Your task to perform on an android device: Open notification settings Image 0: 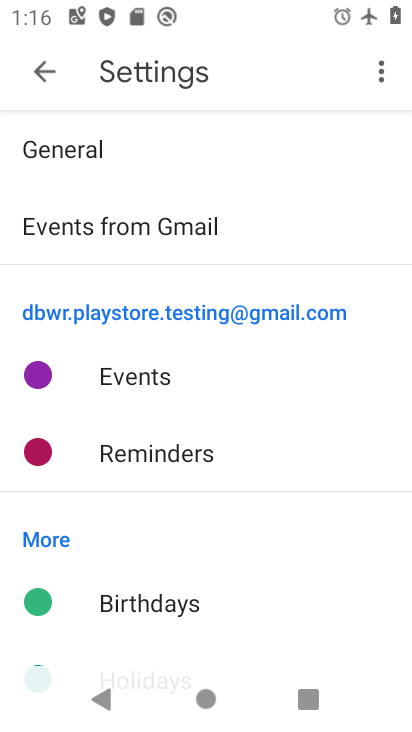
Step 0: press home button
Your task to perform on an android device: Open notification settings Image 1: 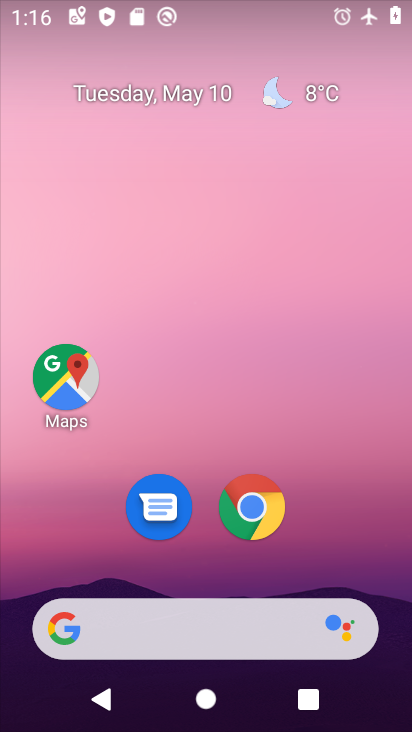
Step 1: drag from (193, 725) to (195, 226)
Your task to perform on an android device: Open notification settings Image 2: 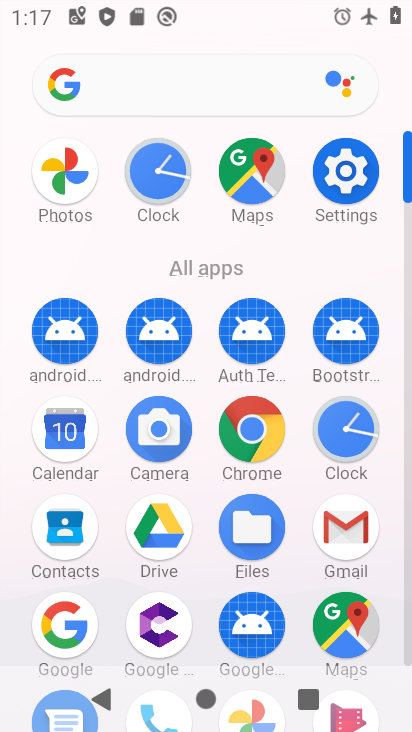
Step 2: click (334, 183)
Your task to perform on an android device: Open notification settings Image 3: 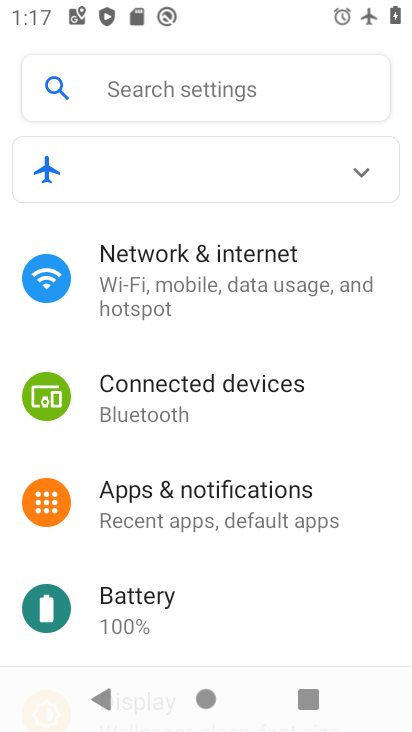
Step 3: click (190, 507)
Your task to perform on an android device: Open notification settings Image 4: 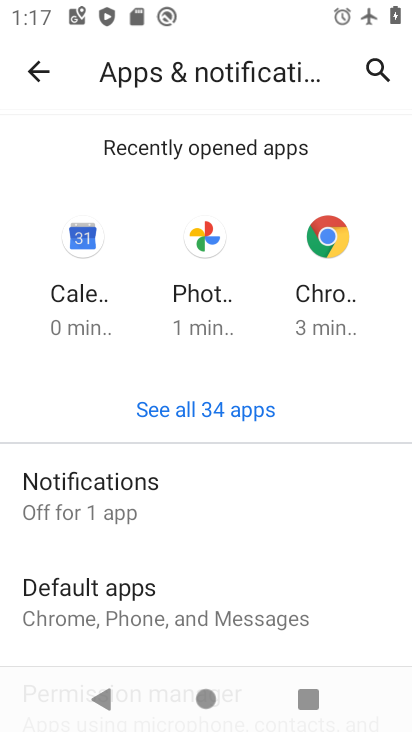
Step 4: click (64, 502)
Your task to perform on an android device: Open notification settings Image 5: 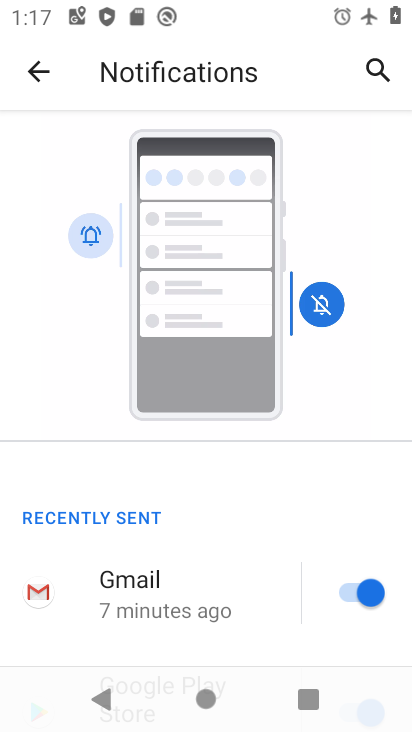
Step 5: drag from (147, 633) to (147, 263)
Your task to perform on an android device: Open notification settings Image 6: 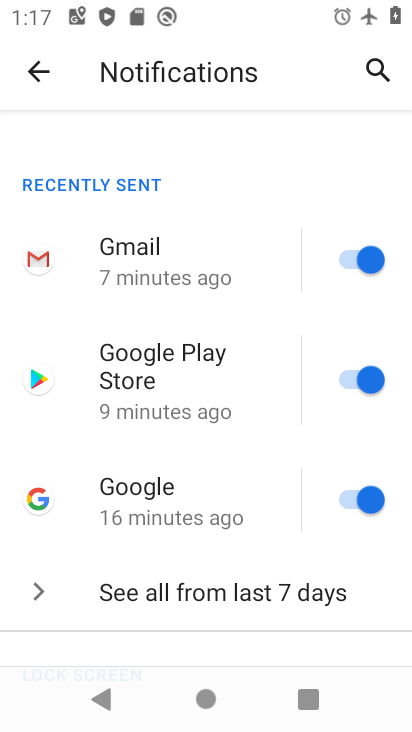
Step 6: drag from (183, 618) to (187, 237)
Your task to perform on an android device: Open notification settings Image 7: 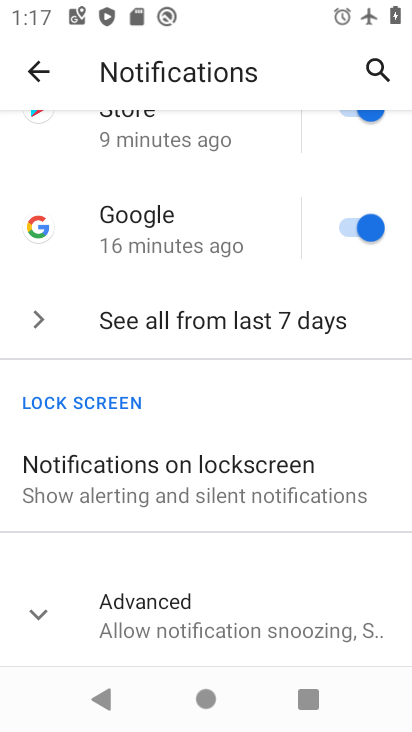
Step 7: click (167, 474)
Your task to perform on an android device: Open notification settings Image 8: 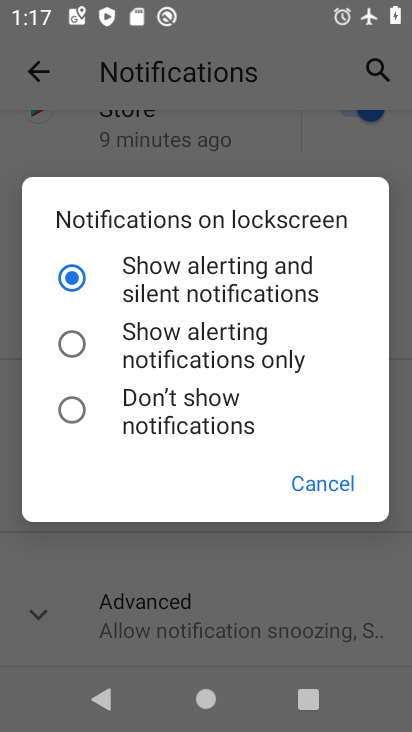
Step 8: click (140, 573)
Your task to perform on an android device: Open notification settings Image 9: 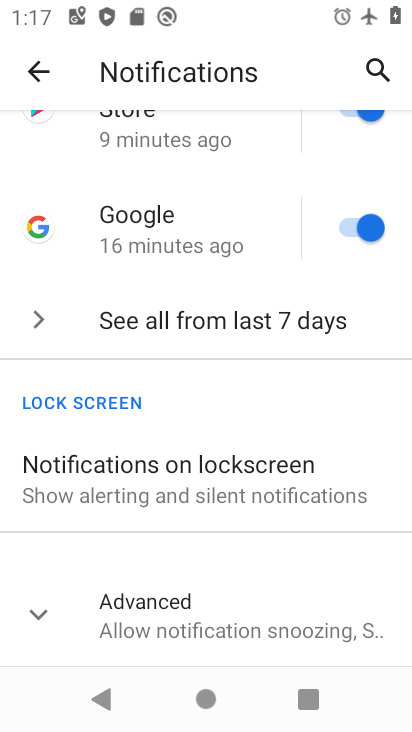
Step 9: task complete